Your task to perform on an android device: check storage Image 0: 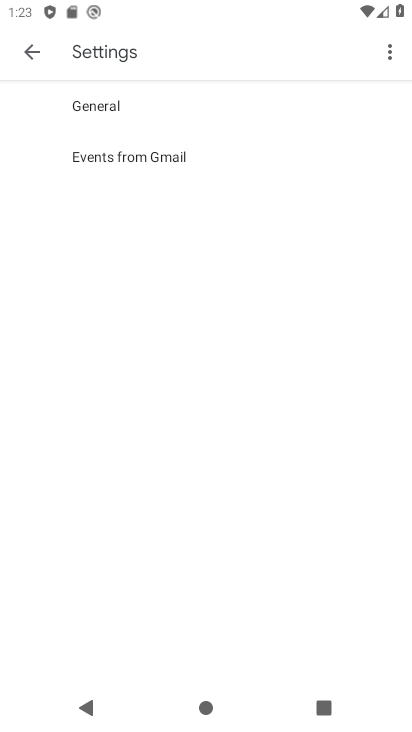
Step 0: press home button
Your task to perform on an android device: check storage Image 1: 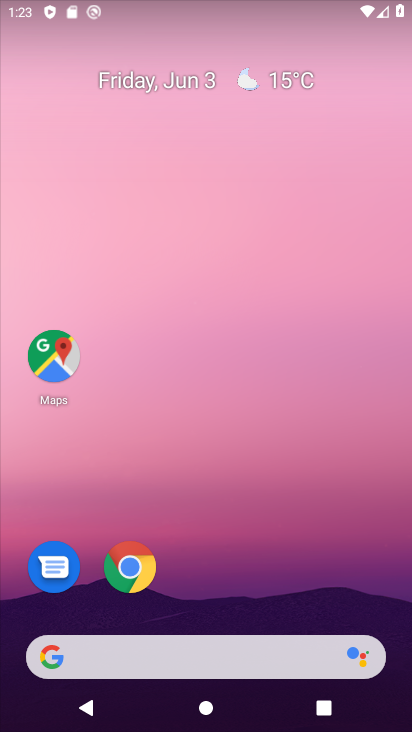
Step 1: drag from (215, 630) to (286, 7)
Your task to perform on an android device: check storage Image 2: 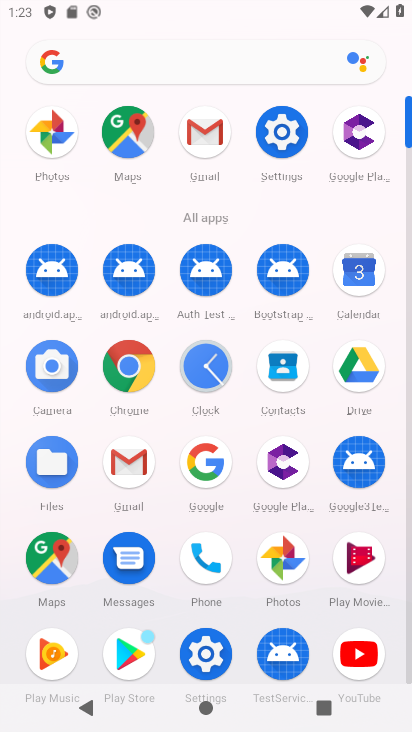
Step 2: click (283, 135)
Your task to perform on an android device: check storage Image 3: 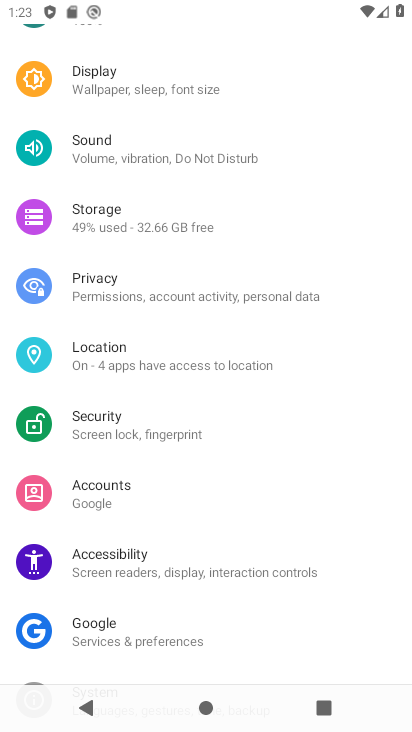
Step 3: click (174, 231)
Your task to perform on an android device: check storage Image 4: 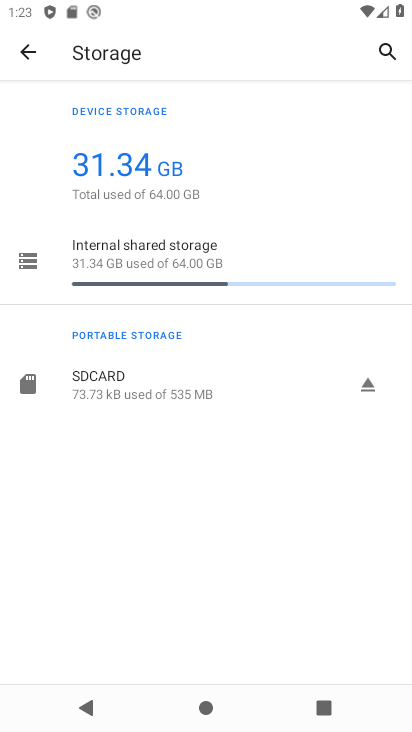
Step 4: task complete